Your task to perform on an android device: Open location settings Image 0: 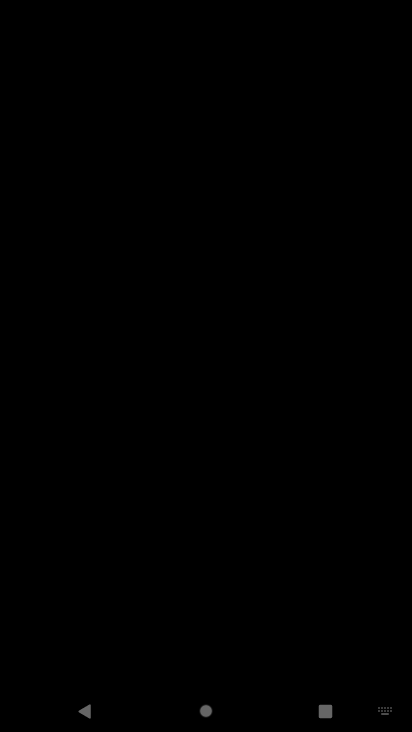
Step 0: press home button
Your task to perform on an android device: Open location settings Image 1: 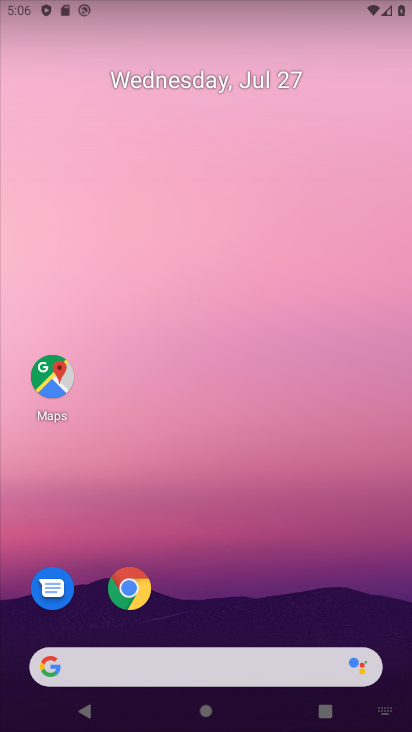
Step 1: drag from (157, 566) to (366, 0)
Your task to perform on an android device: Open location settings Image 2: 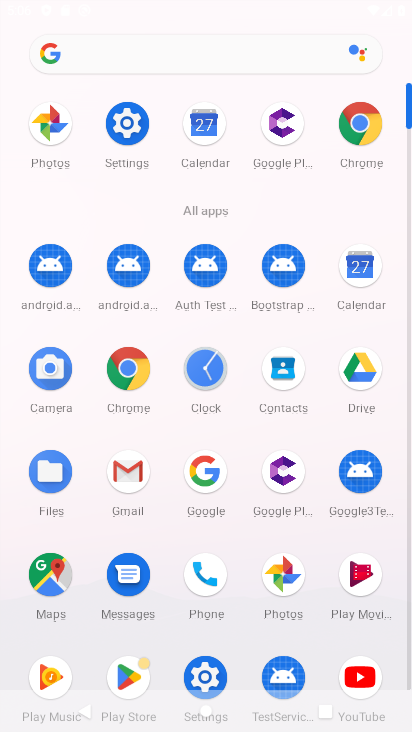
Step 2: click (121, 126)
Your task to perform on an android device: Open location settings Image 3: 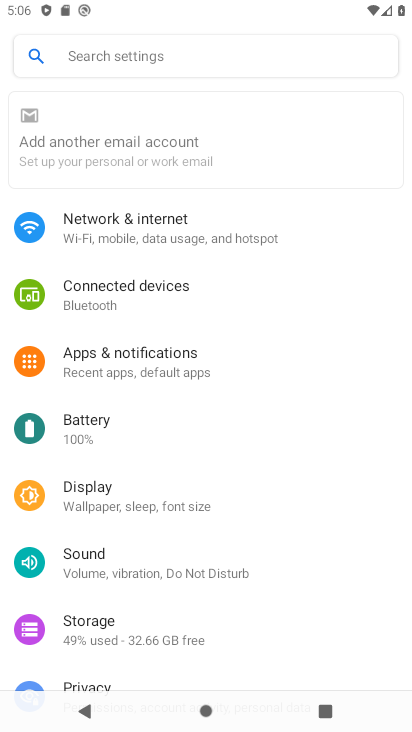
Step 3: click (190, 658)
Your task to perform on an android device: Open location settings Image 4: 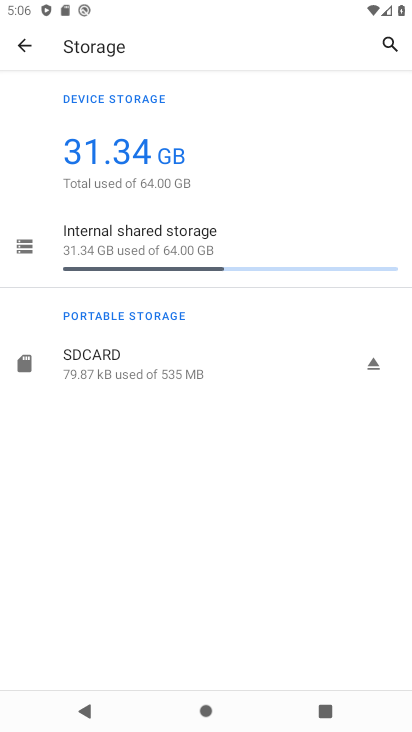
Step 4: press back button
Your task to perform on an android device: Open location settings Image 5: 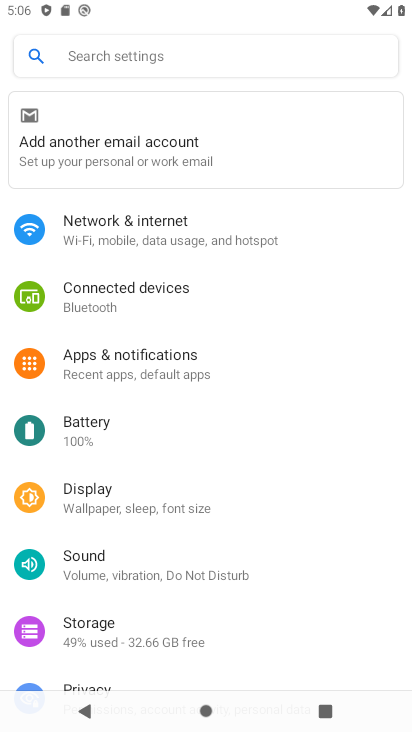
Step 5: drag from (129, 640) to (144, 335)
Your task to perform on an android device: Open location settings Image 6: 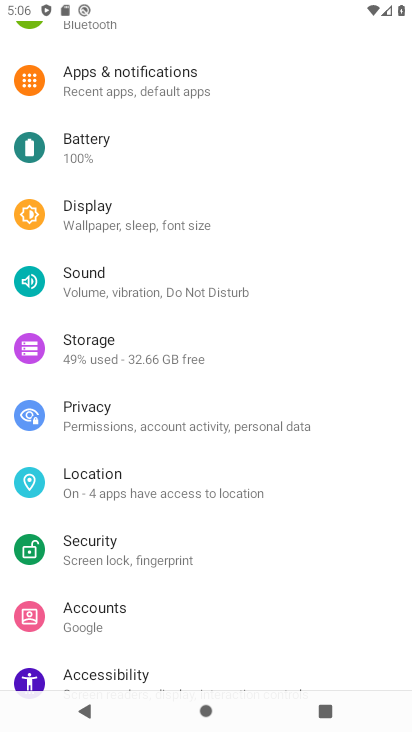
Step 6: click (145, 469)
Your task to perform on an android device: Open location settings Image 7: 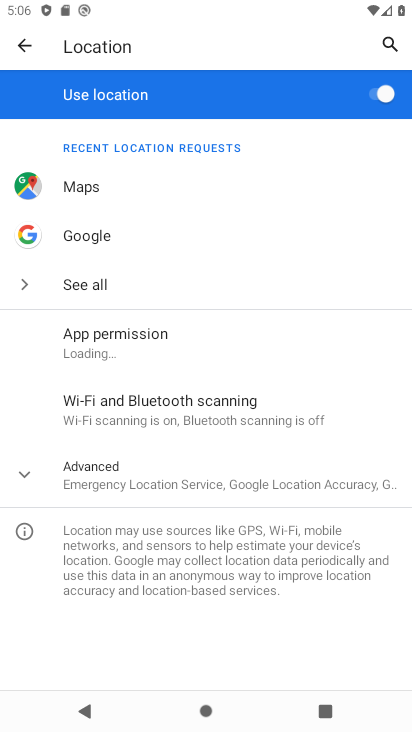
Step 7: task complete